Your task to perform on an android device: change notification settings in the gmail app Image 0: 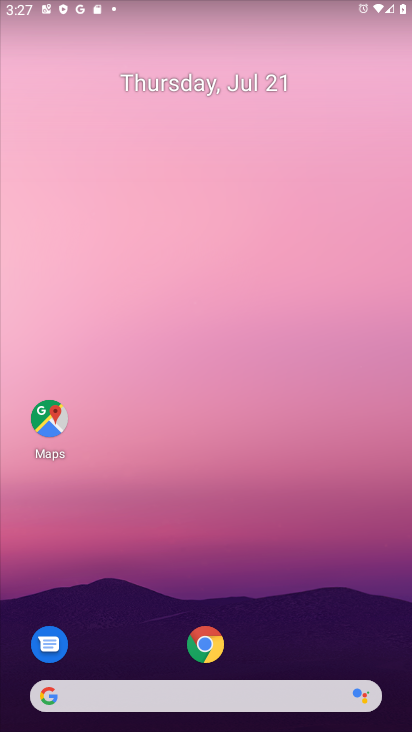
Step 0: press home button
Your task to perform on an android device: change notification settings in the gmail app Image 1: 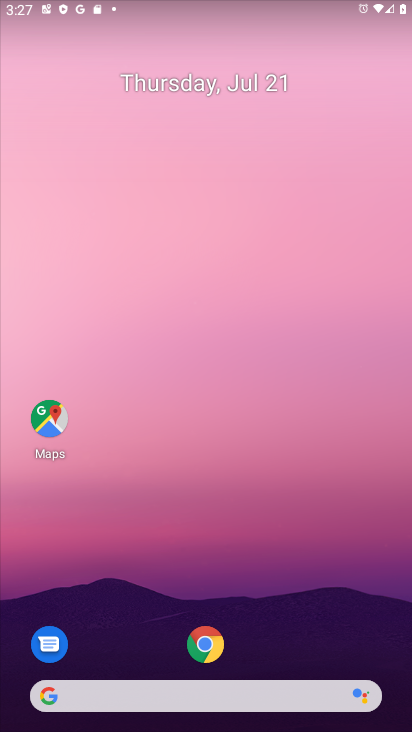
Step 1: drag from (299, 637) to (272, 39)
Your task to perform on an android device: change notification settings in the gmail app Image 2: 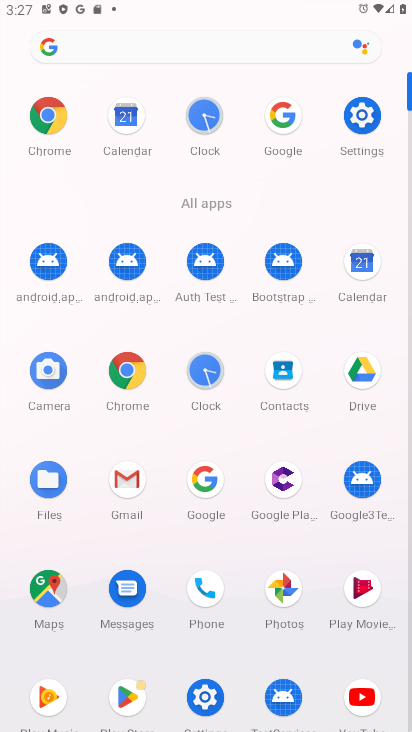
Step 2: click (123, 481)
Your task to perform on an android device: change notification settings in the gmail app Image 3: 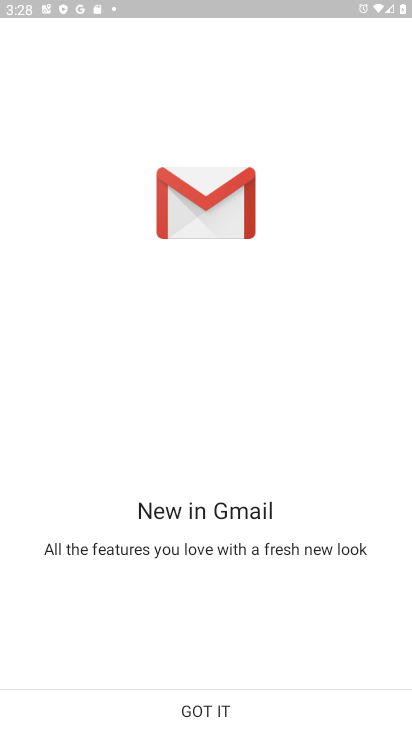
Step 3: click (197, 706)
Your task to perform on an android device: change notification settings in the gmail app Image 4: 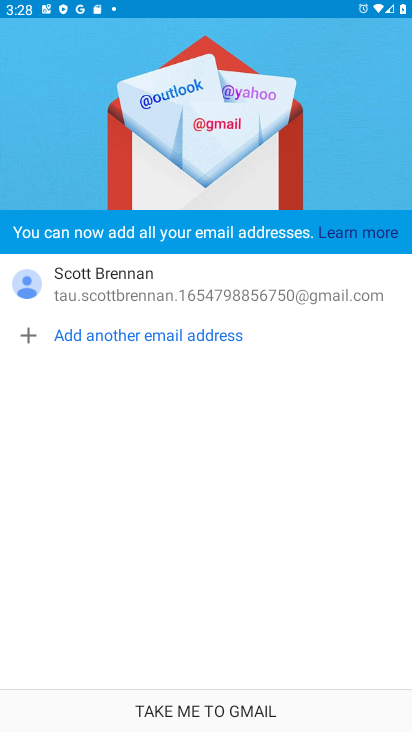
Step 4: click (197, 706)
Your task to perform on an android device: change notification settings in the gmail app Image 5: 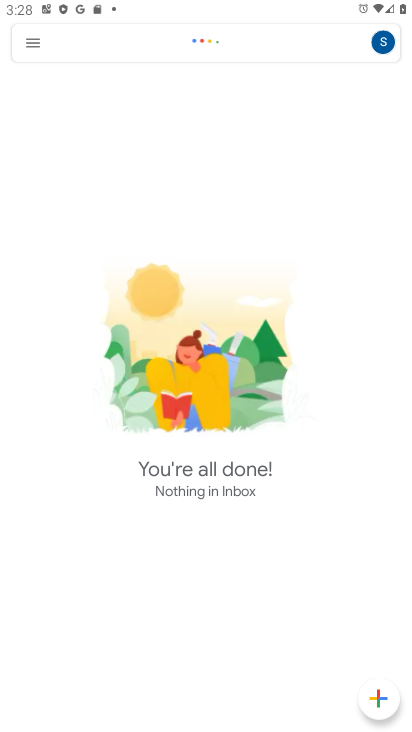
Step 5: click (26, 40)
Your task to perform on an android device: change notification settings in the gmail app Image 6: 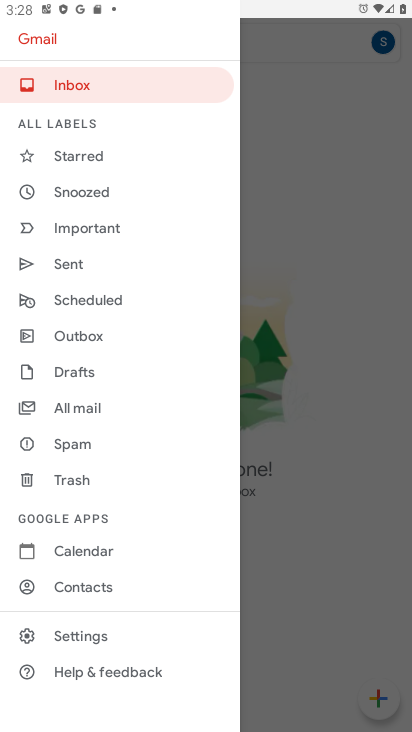
Step 6: click (67, 632)
Your task to perform on an android device: change notification settings in the gmail app Image 7: 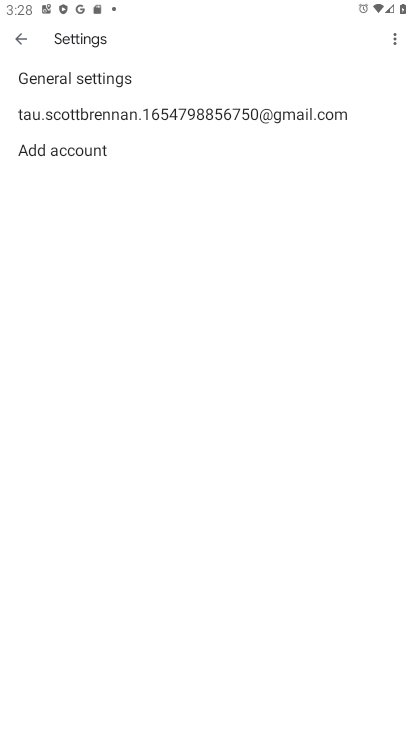
Step 7: click (92, 113)
Your task to perform on an android device: change notification settings in the gmail app Image 8: 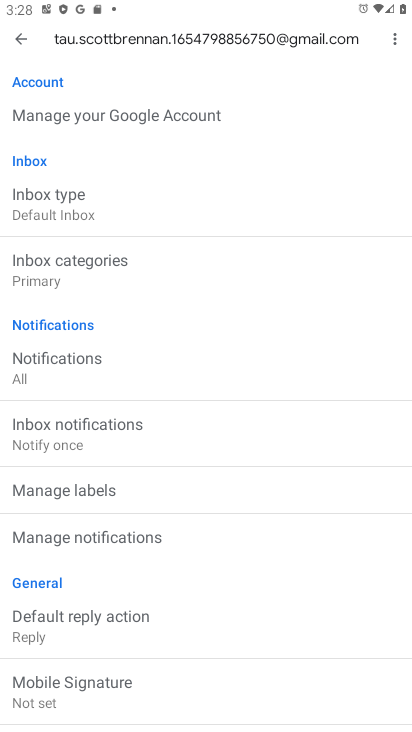
Step 8: click (75, 532)
Your task to perform on an android device: change notification settings in the gmail app Image 9: 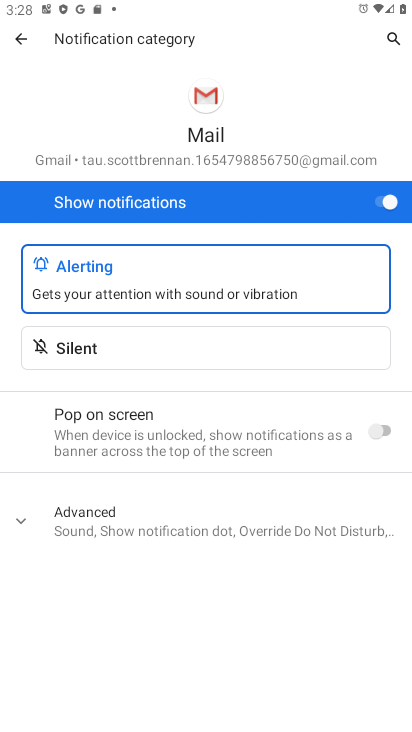
Step 9: click (382, 204)
Your task to perform on an android device: change notification settings in the gmail app Image 10: 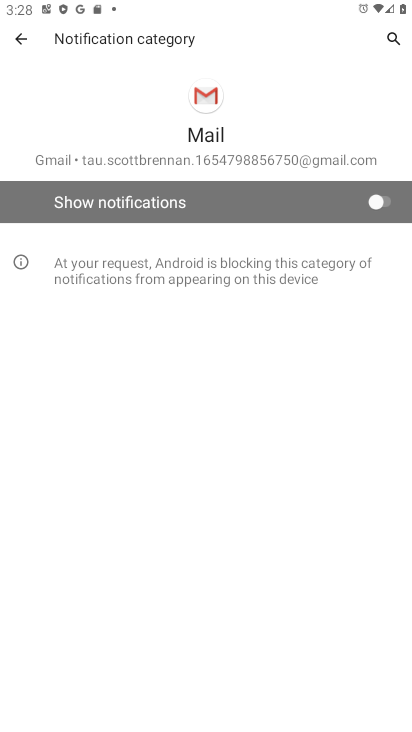
Step 10: task complete